Your task to perform on an android device: Turn off the flashlight Image 0: 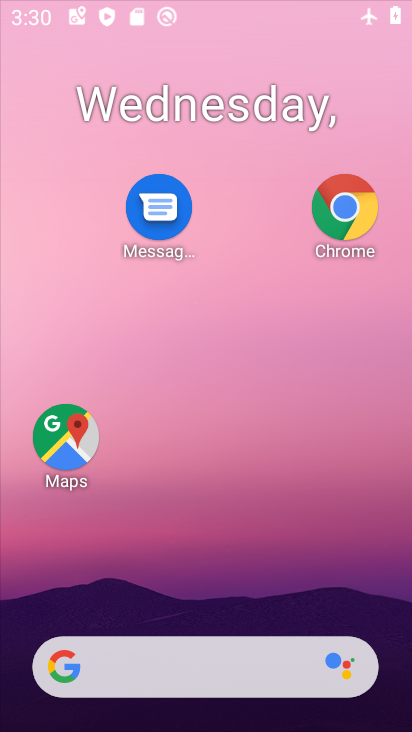
Step 0: click (166, 116)
Your task to perform on an android device: Turn off the flashlight Image 1: 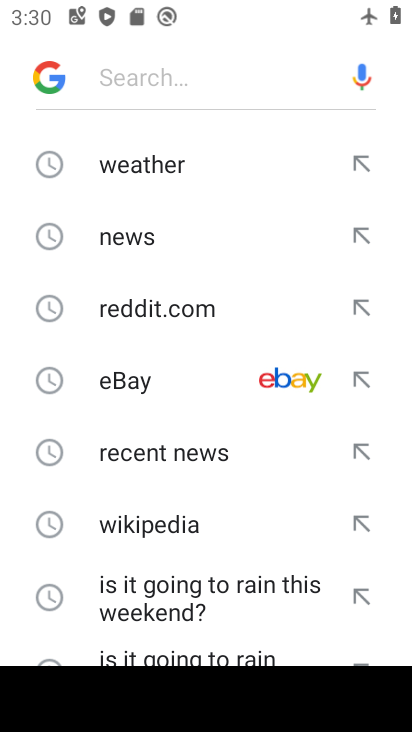
Step 1: press home button
Your task to perform on an android device: Turn off the flashlight Image 2: 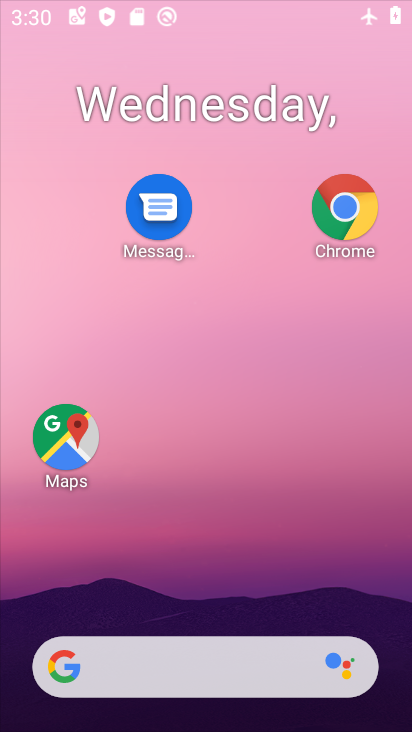
Step 2: drag from (209, 592) to (271, 101)
Your task to perform on an android device: Turn off the flashlight Image 3: 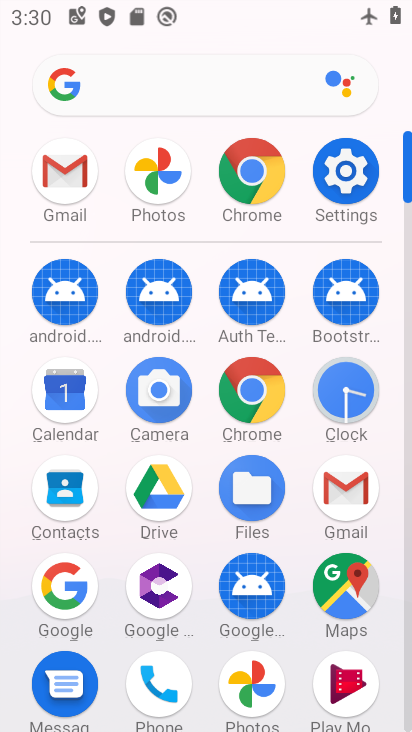
Step 3: click (348, 168)
Your task to perform on an android device: Turn off the flashlight Image 4: 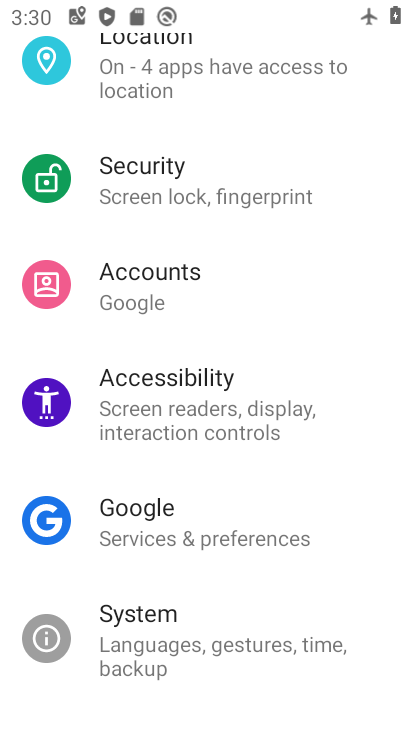
Step 4: drag from (170, 109) to (361, 724)
Your task to perform on an android device: Turn off the flashlight Image 5: 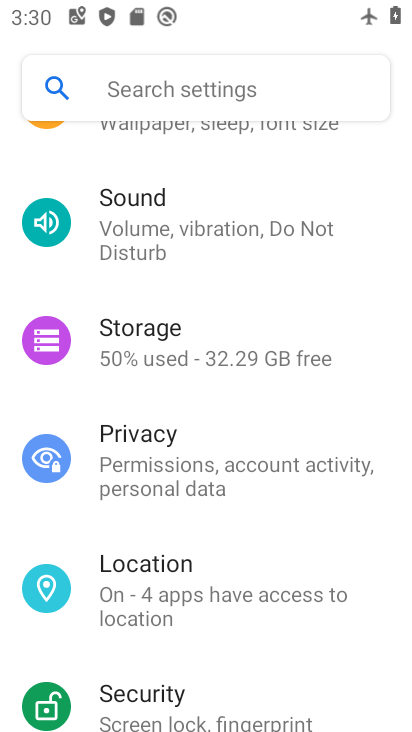
Step 5: click (164, 86)
Your task to perform on an android device: Turn off the flashlight Image 6: 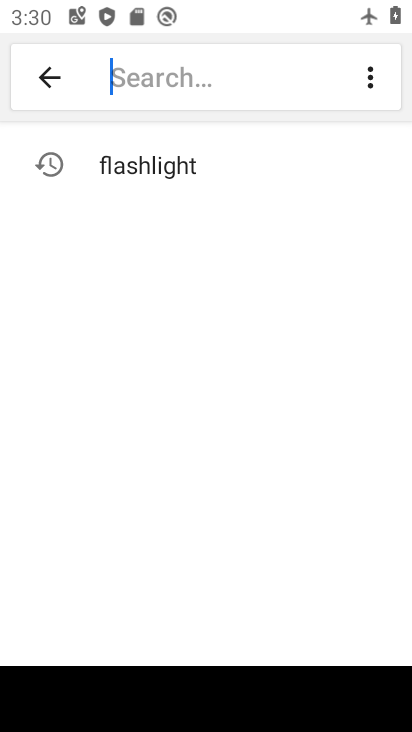
Step 6: click (177, 178)
Your task to perform on an android device: Turn off the flashlight Image 7: 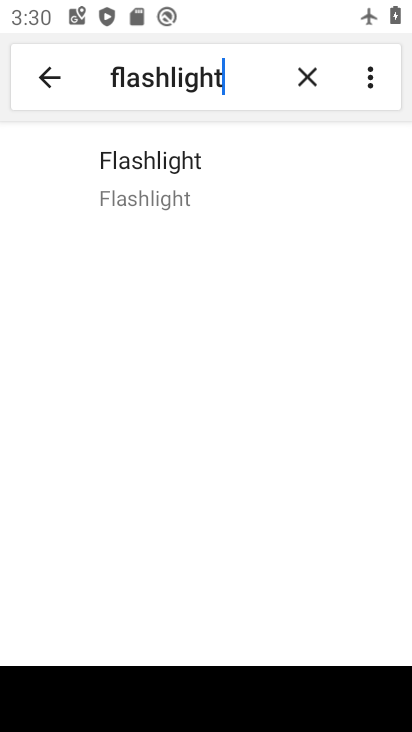
Step 7: click (223, 175)
Your task to perform on an android device: Turn off the flashlight Image 8: 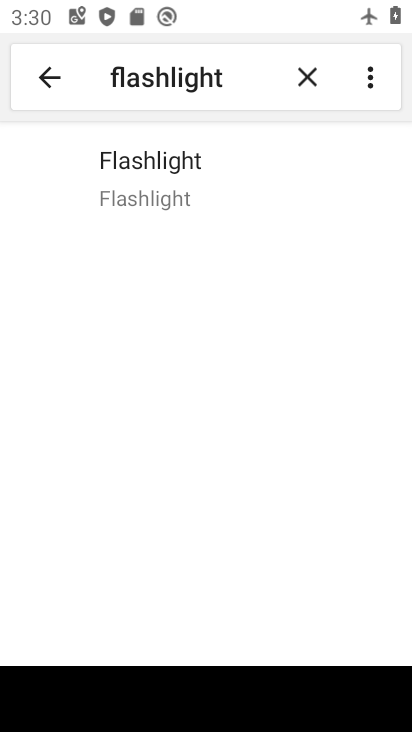
Step 8: task complete